Your task to perform on an android device: open sync settings in chrome Image 0: 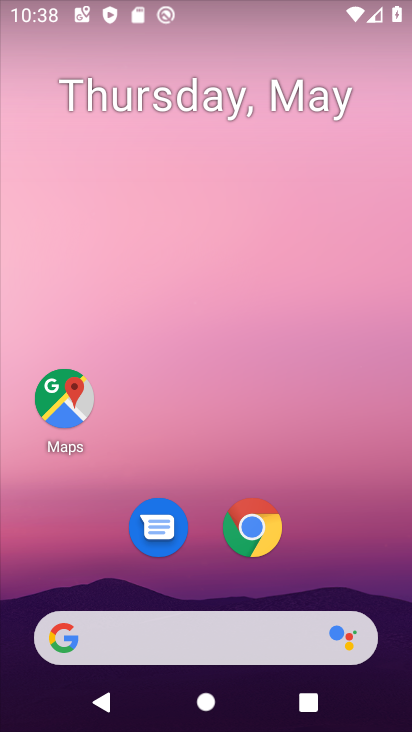
Step 0: click (246, 521)
Your task to perform on an android device: open sync settings in chrome Image 1: 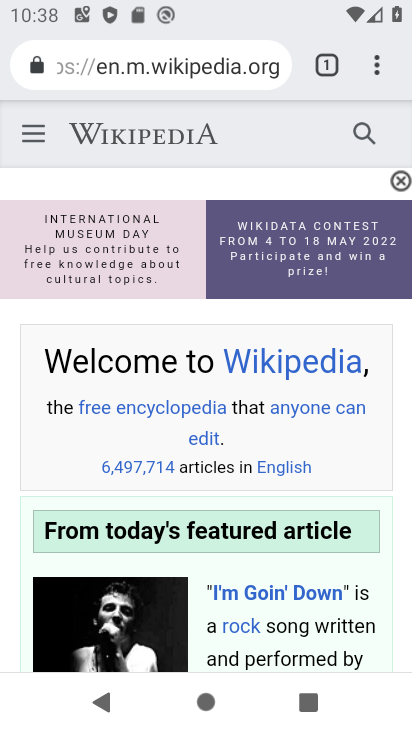
Step 1: click (378, 61)
Your task to perform on an android device: open sync settings in chrome Image 2: 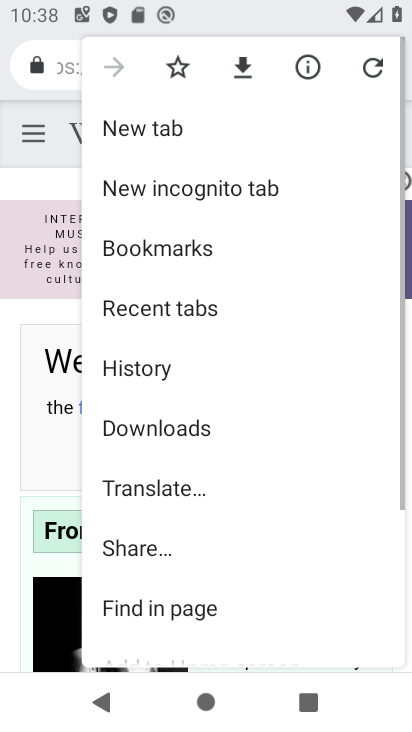
Step 2: drag from (186, 572) to (253, 202)
Your task to perform on an android device: open sync settings in chrome Image 3: 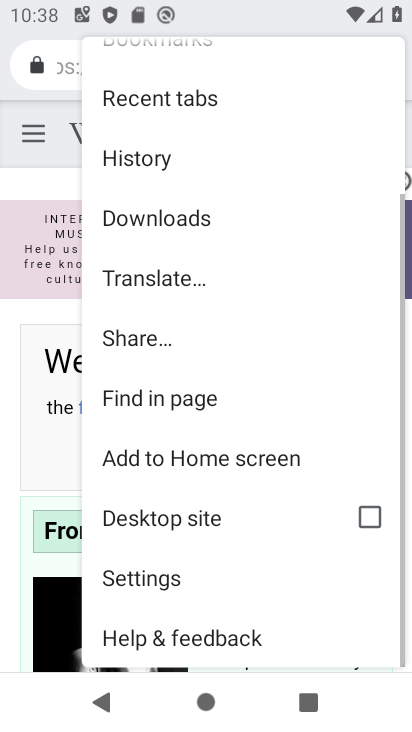
Step 3: click (127, 569)
Your task to perform on an android device: open sync settings in chrome Image 4: 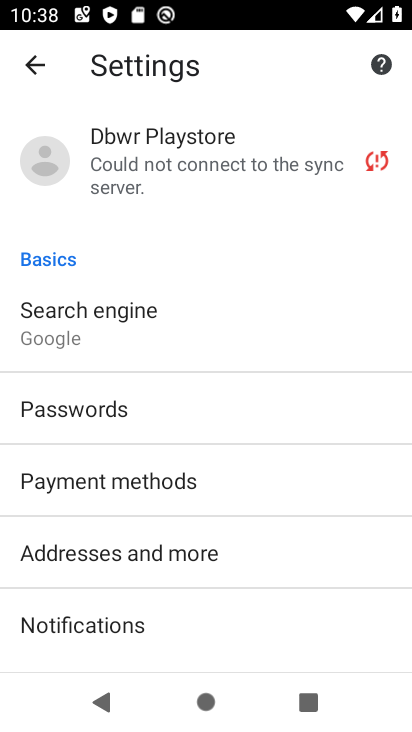
Step 4: click (162, 183)
Your task to perform on an android device: open sync settings in chrome Image 5: 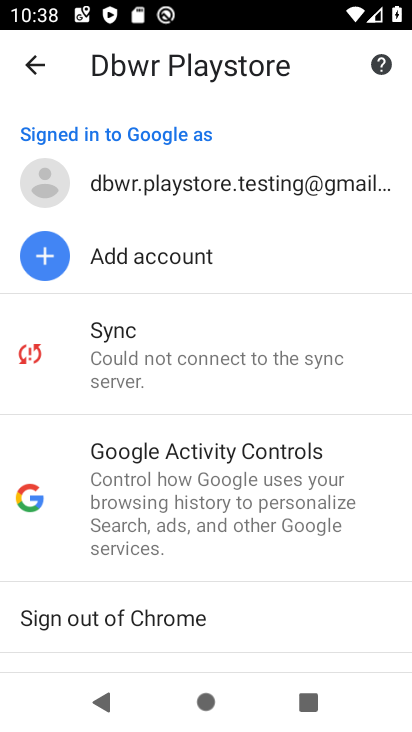
Step 5: click (155, 356)
Your task to perform on an android device: open sync settings in chrome Image 6: 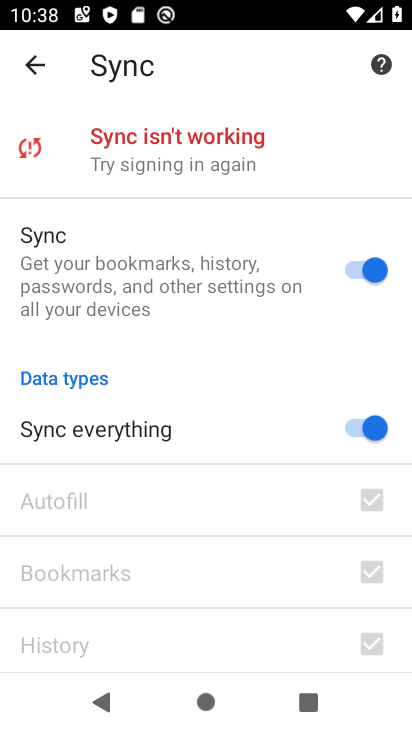
Step 6: task complete